Your task to perform on an android device: Open the phone app and click the voicemail tab. Image 0: 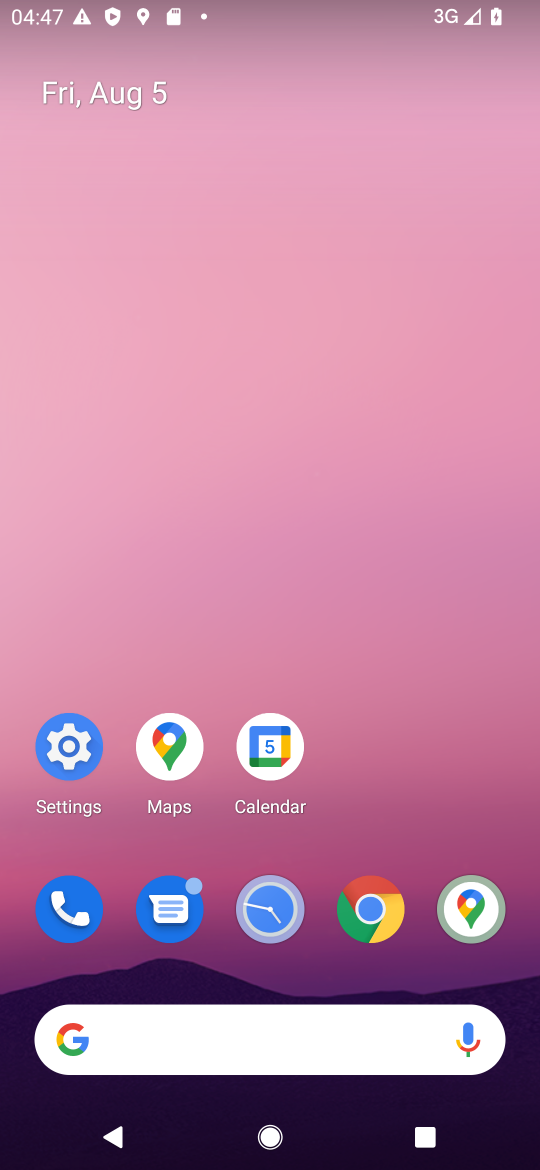
Step 0: press home button
Your task to perform on an android device: Open the phone app and click the voicemail tab. Image 1: 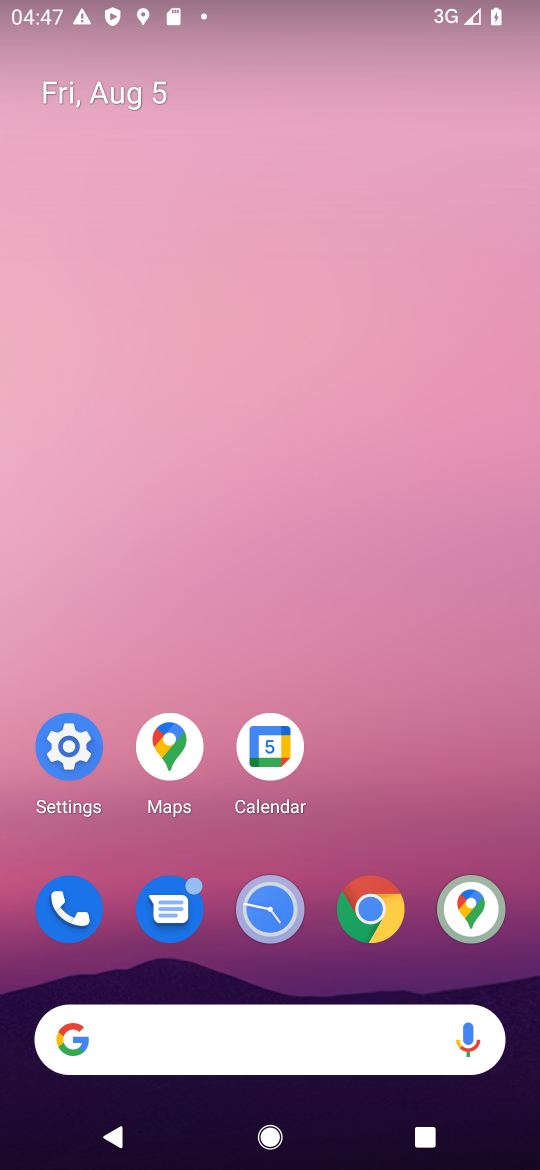
Step 1: drag from (355, 842) to (282, 94)
Your task to perform on an android device: Open the phone app and click the voicemail tab. Image 2: 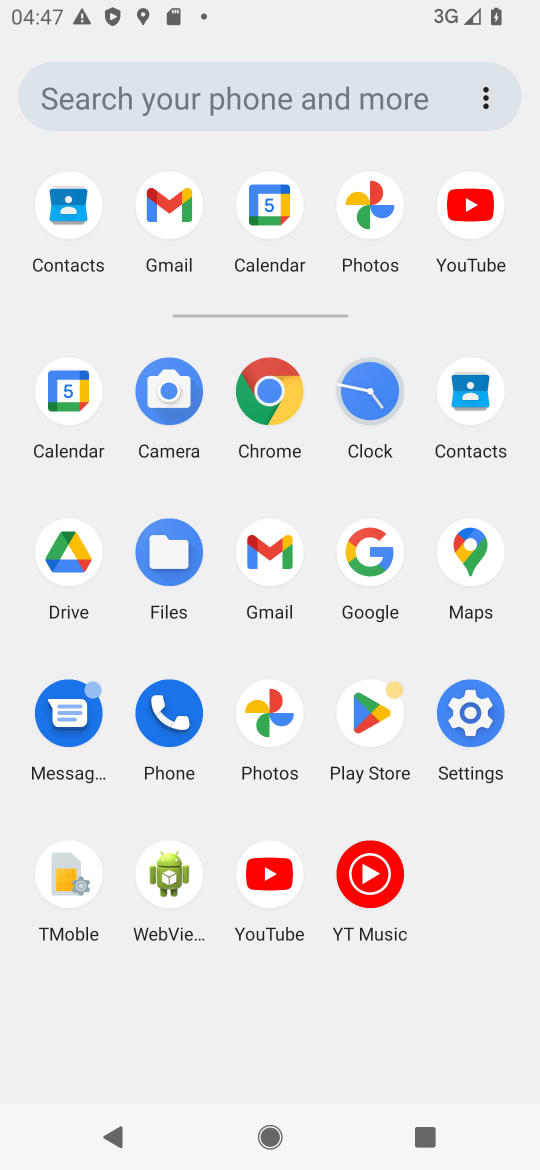
Step 2: click (169, 723)
Your task to perform on an android device: Open the phone app and click the voicemail tab. Image 3: 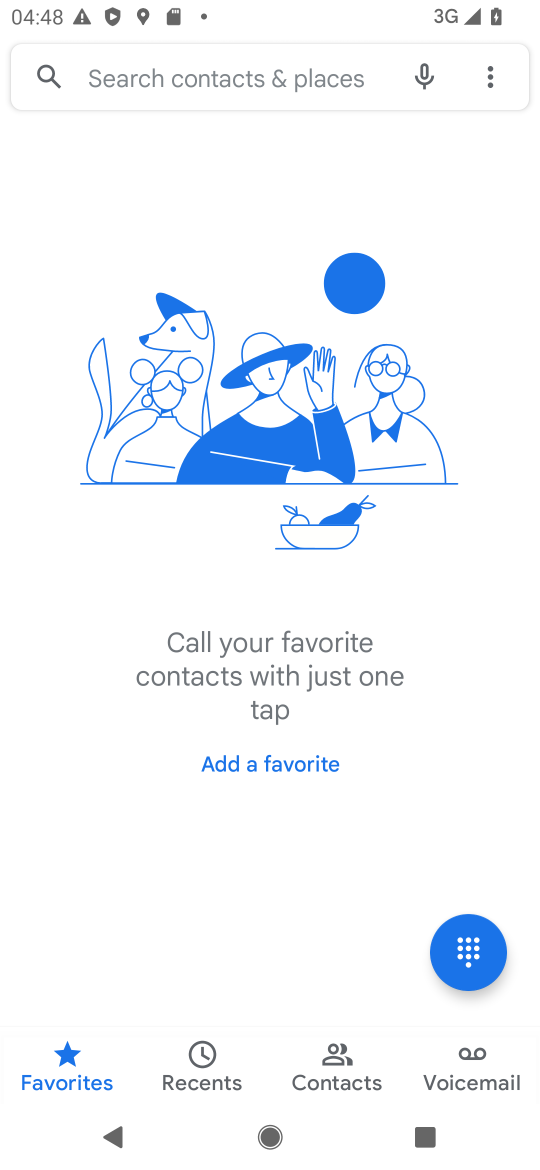
Step 3: click (475, 1058)
Your task to perform on an android device: Open the phone app and click the voicemail tab. Image 4: 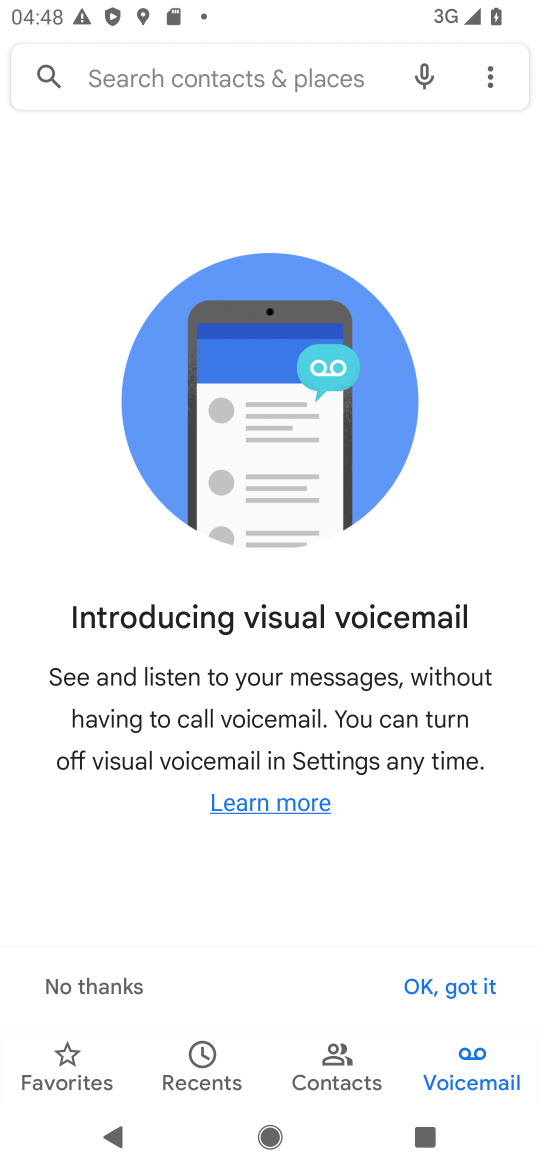
Step 4: click (457, 979)
Your task to perform on an android device: Open the phone app and click the voicemail tab. Image 5: 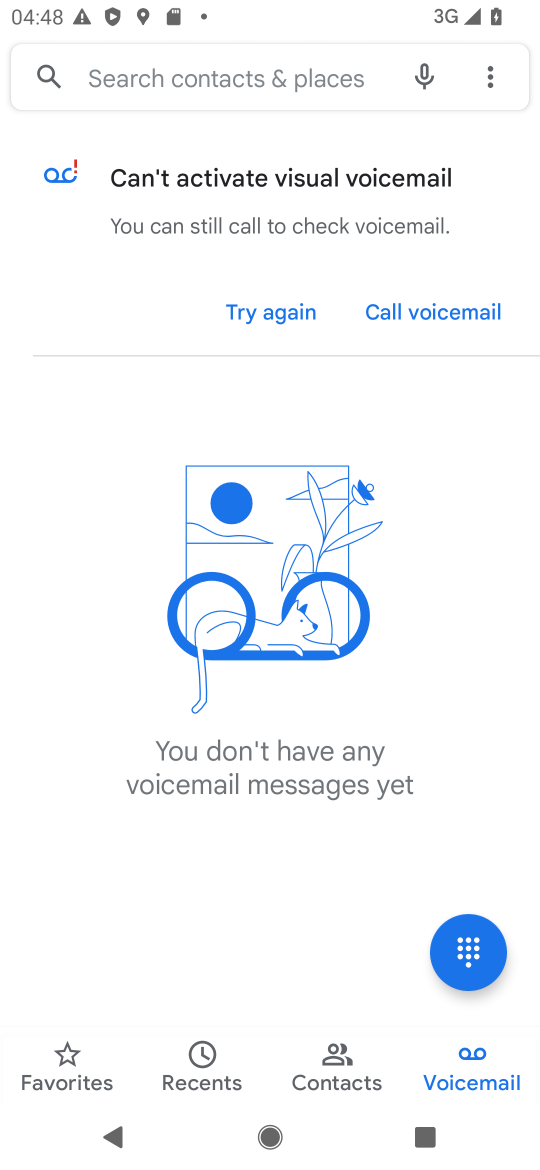
Step 5: task complete